Your task to perform on an android device: see tabs open on other devices in the chrome app Image 0: 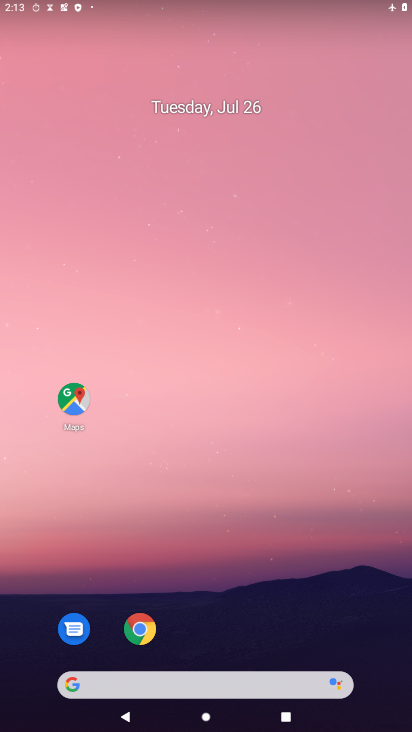
Step 0: drag from (316, 482) to (353, 9)
Your task to perform on an android device: see tabs open on other devices in the chrome app Image 1: 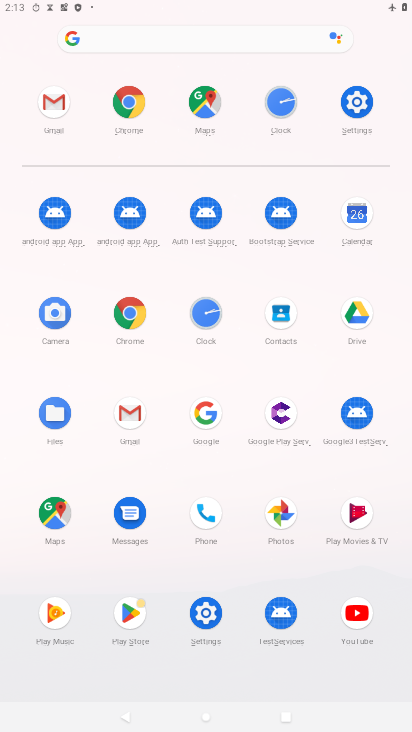
Step 1: click (129, 321)
Your task to perform on an android device: see tabs open on other devices in the chrome app Image 2: 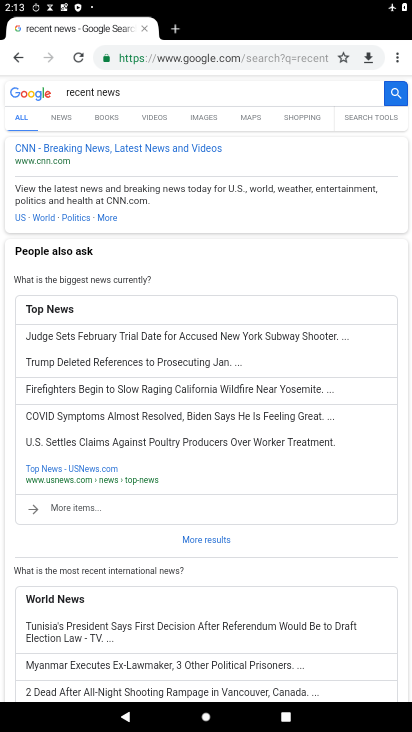
Step 2: drag from (399, 56) to (305, 191)
Your task to perform on an android device: see tabs open on other devices in the chrome app Image 3: 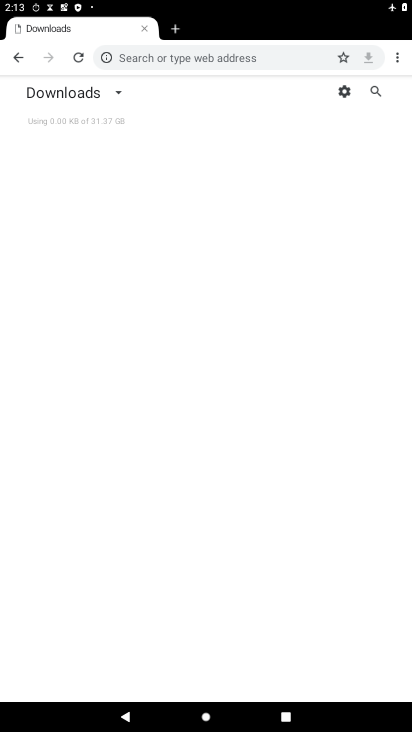
Step 3: press back button
Your task to perform on an android device: see tabs open on other devices in the chrome app Image 4: 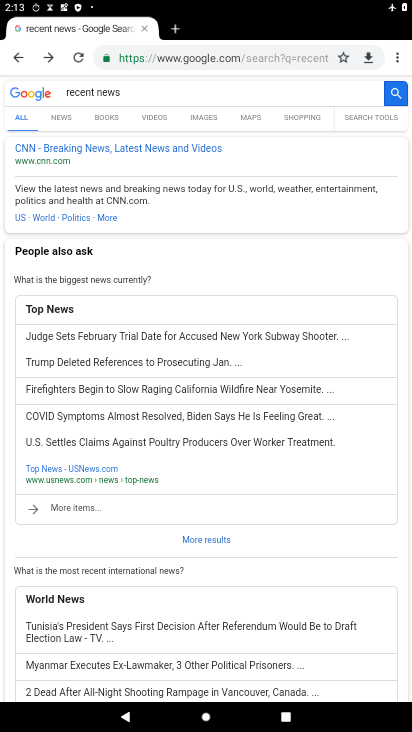
Step 4: click (396, 55)
Your task to perform on an android device: see tabs open on other devices in the chrome app Image 5: 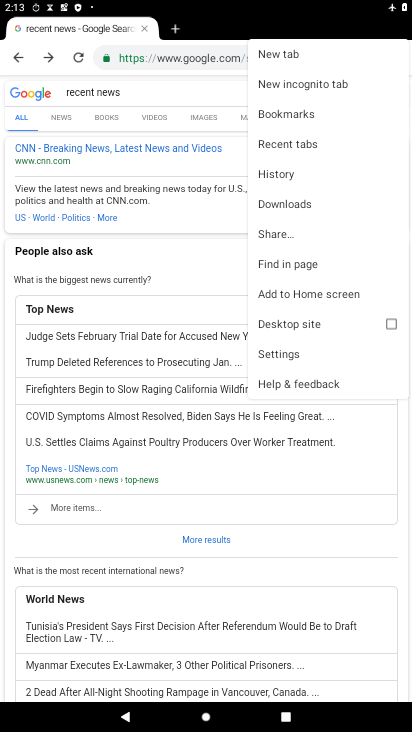
Step 5: click (297, 140)
Your task to perform on an android device: see tabs open on other devices in the chrome app Image 6: 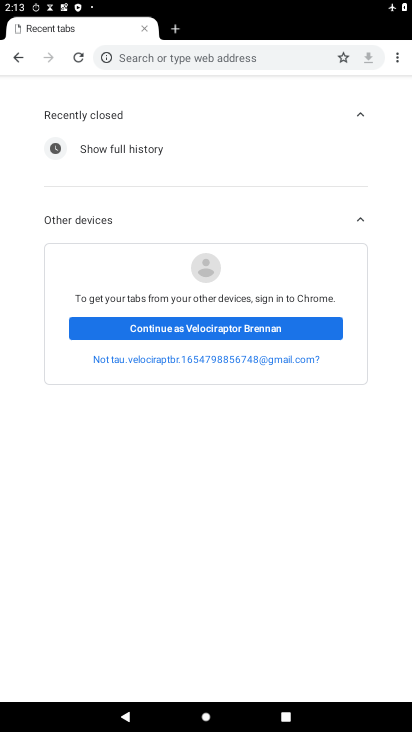
Step 6: task complete